Your task to perform on an android device: Open Yahoo.com Image 0: 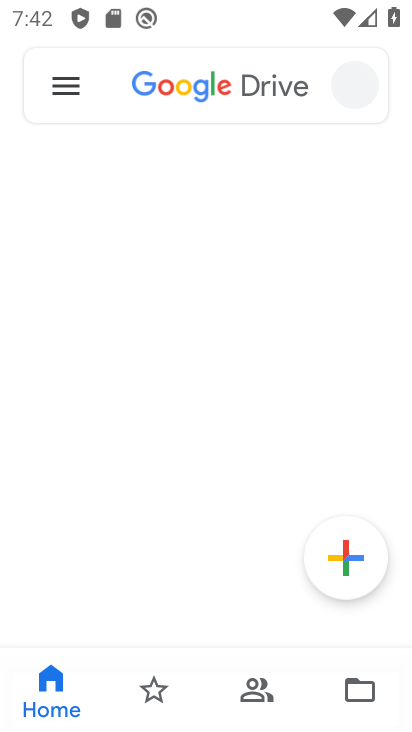
Step 0: drag from (390, 594) to (373, 443)
Your task to perform on an android device: Open Yahoo.com Image 1: 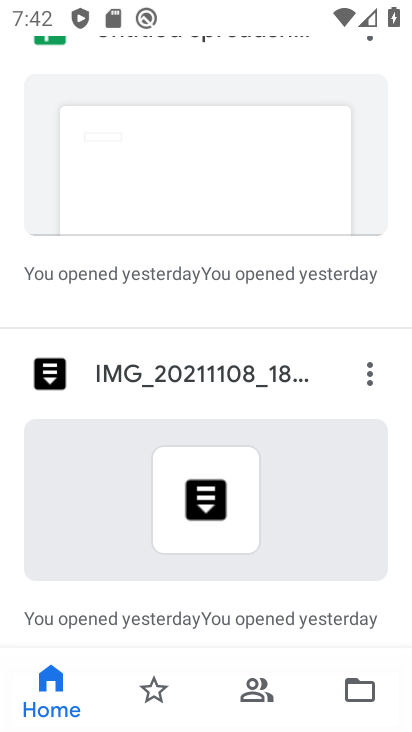
Step 1: press home button
Your task to perform on an android device: Open Yahoo.com Image 2: 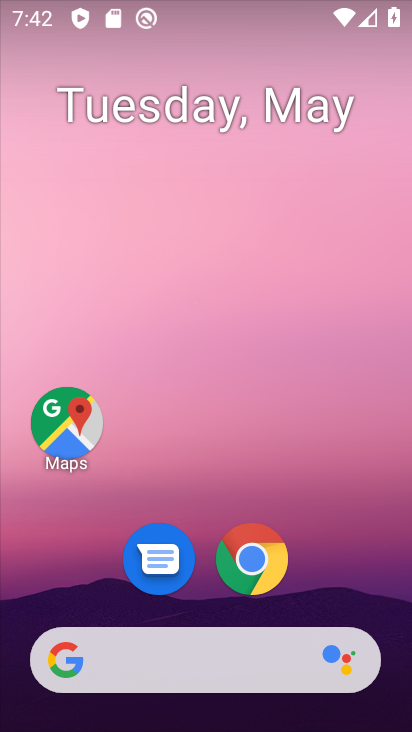
Step 2: drag from (368, 598) to (360, 181)
Your task to perform on an android device: Open Yahoo.com Image 3: 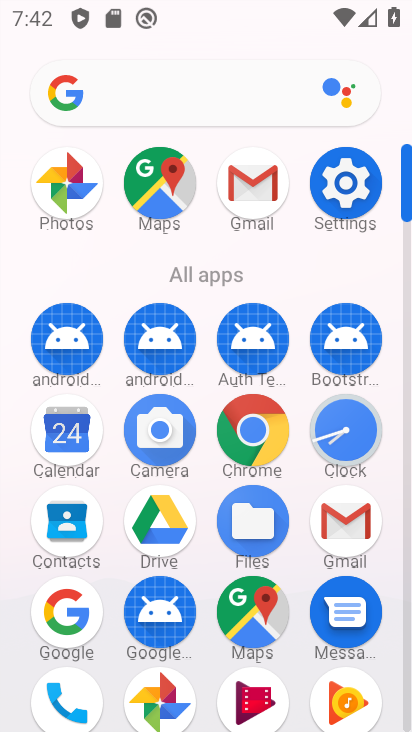
Step 3: click (261, 441)
Your task to perform on an android device: Open Yahoo.com Image 4: 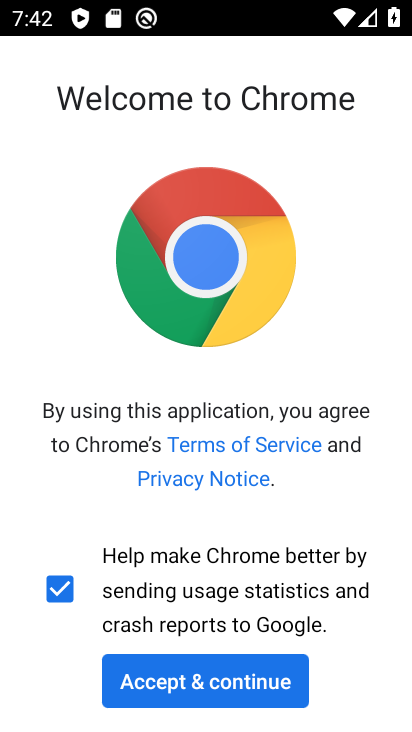
Step 4: click (299, 686)
Your task to perform on an android device: Open Yahoo.com Image 5: 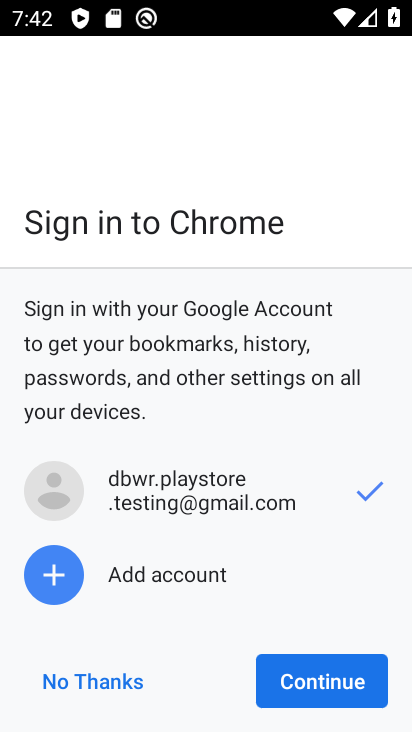
Step 5: click (299, 686)
Your task to perform on an android device: Open Yahoo.com Image 6: 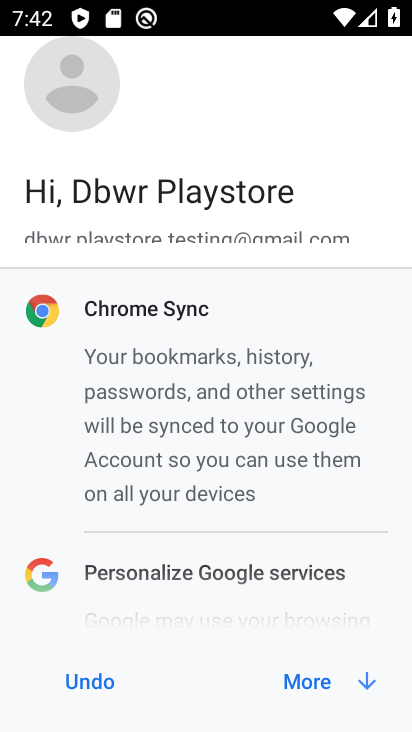
Step 6: click (299, 686)
Your task to perform on an android device: Open Yahoo.com Image 7: 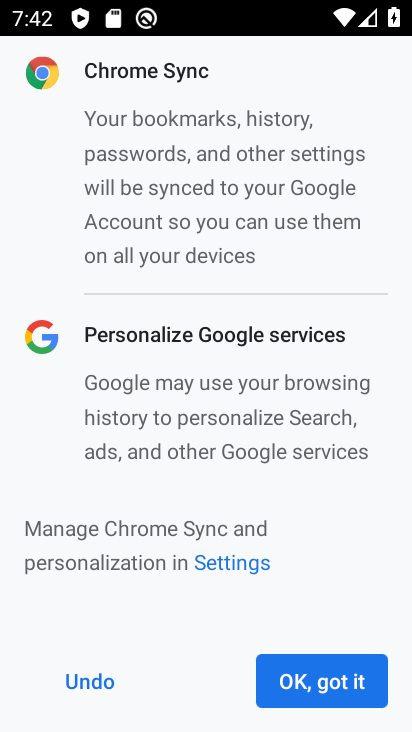
Step 7: click (299, 686)
Your task to perform on an android device: Open Yahoo.com Image 8: 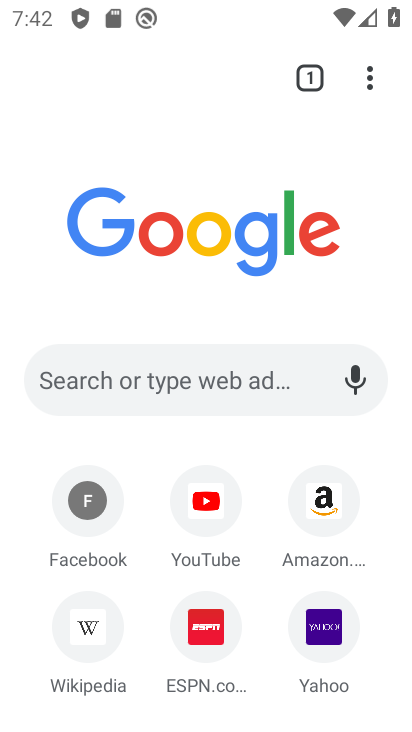
Step 8: click (313, 633)
Your task to perform on an android device: Open Yahoo.com Image 9: 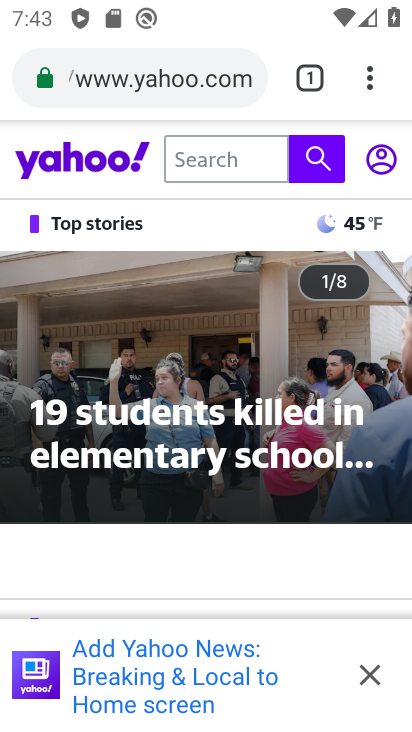
Step 9: task complete